Your task to perform on an android device: turn off notifications settings in the gmail app Image 0: 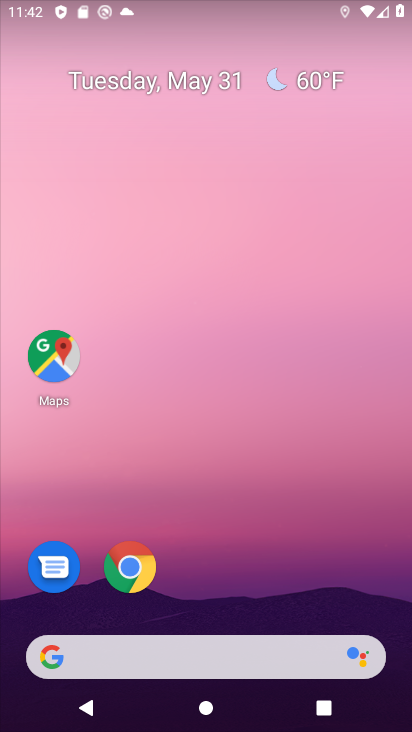
Step 0: drag from (150, 661) to (187, 160)
Your task to perform on an android device: turn off notifications settings in the gmail app Image 1: 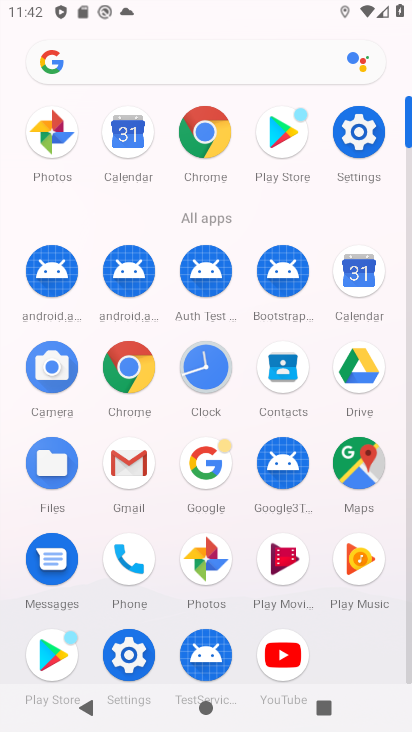
Step 1: click (127, 455)
Your task to perform on an android device: turn off notifications settings in the gmail app Image 2: 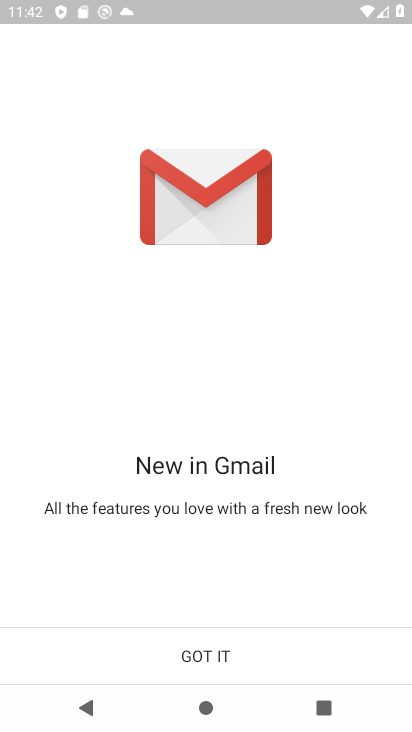
Step 2: click (185, 662)
Your task to perform on an android device: turn off notifications settings in the gmail app Image 3: 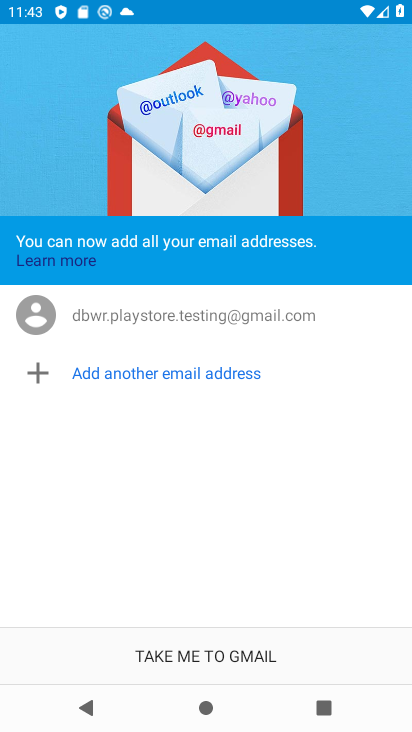
Step 3: click (186, 650)
Your task to perform on an android device: turn off notifications settings in the gmail app Image 4: 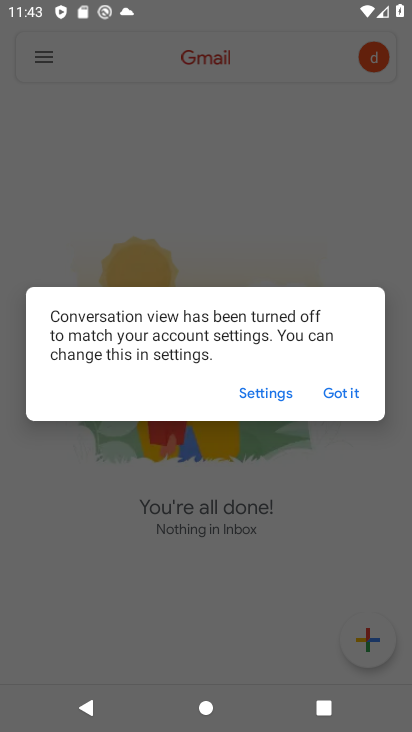
Step 4: click (342, 395)
Your task to perform on an android device: turn off notifications settings in the gmail app Image 5: 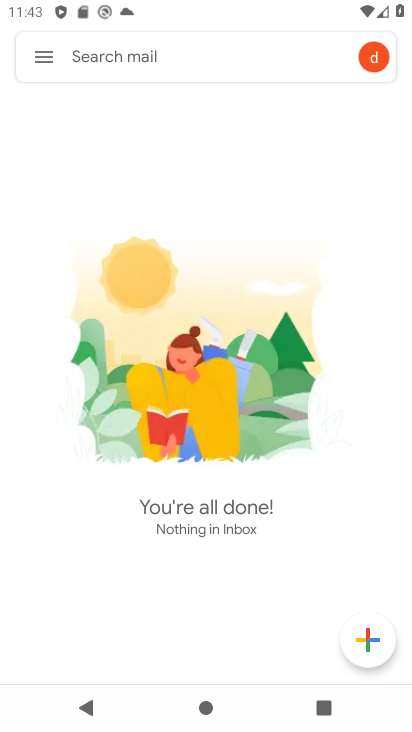
Step 5: click (42, 60)
Your task to perform on an android device: turn off notifications settings in the gmail app Image 6: 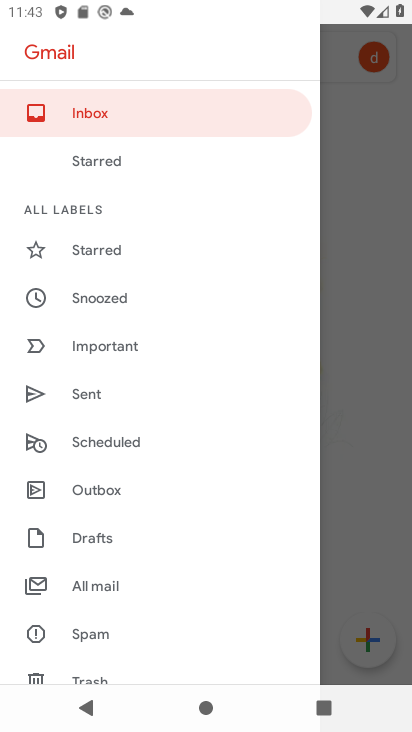
Step 6: drag from (84, 496) to (47, 0)
Your task to perform on an android device: turn off notifications settings in the gmail app Image 7: 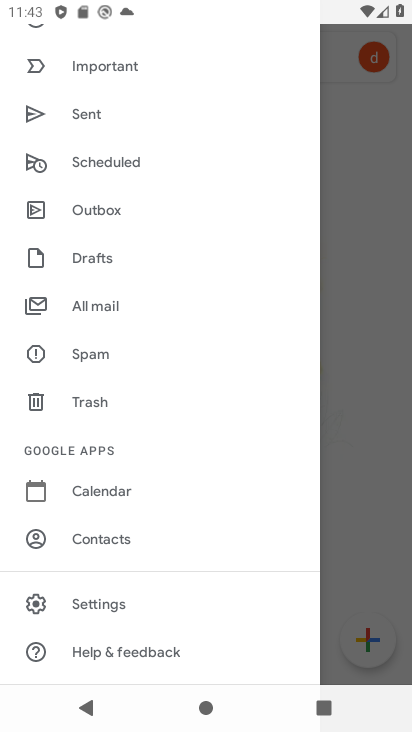
Step 7: click (108, 603)
Your task to perform on an android device: turn off notifications settings in the gmail app Image 8: 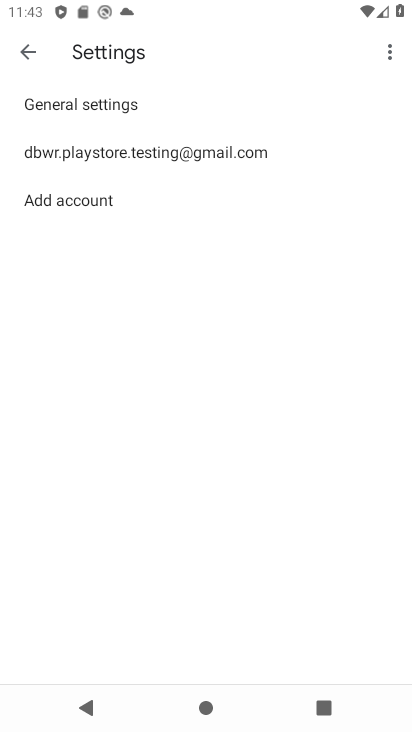
Step 8: click (197, 155)
Your task to perform on an android device: turn off notifications settings in the gmail app Image 9: 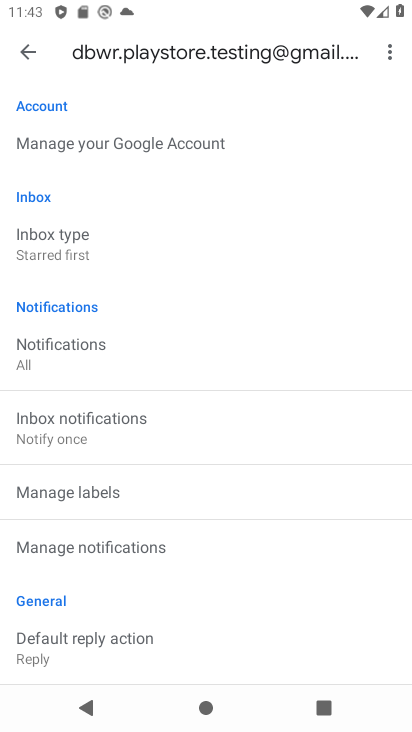
Step 9: click (143, 544)
Your task to perform on an android device: turn off notifications settings in the gmail app Image 10: 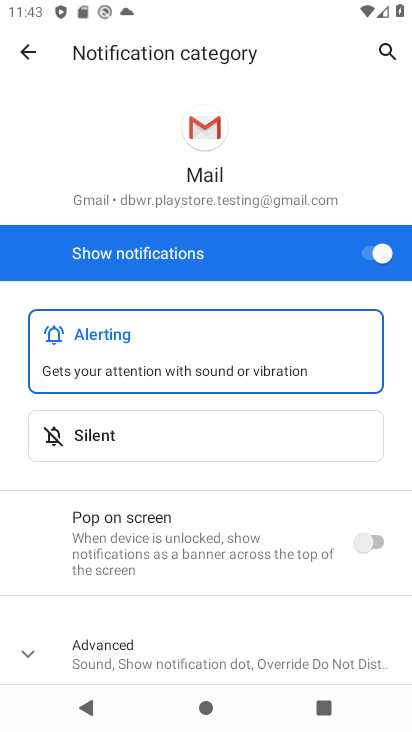
Step 10: click (375, 261)
Your task to perform on an android device: turn off notifications settings in the gmail app Image 11: 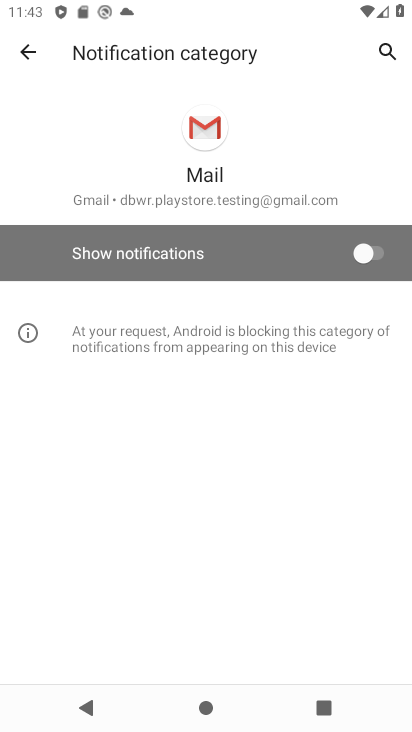
Step 11: task complete